Your task to perform on an android device: Open Google Chrome Image 0: 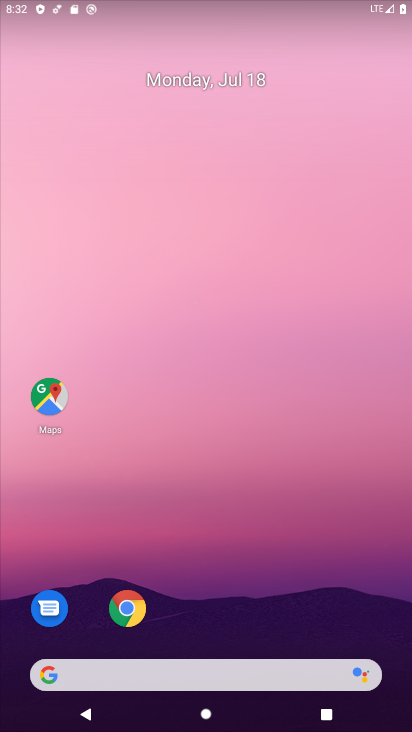
Step 0: click (131, 609)
Your task to perform on an android device: Open Google Chrome Image 1: 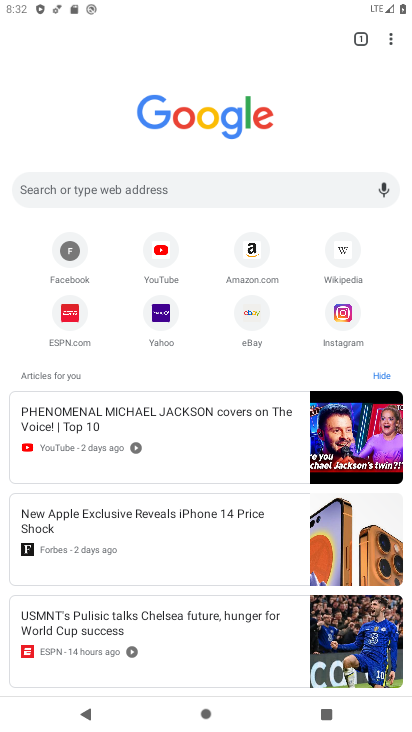
Step 1: task complete